Your task to perform on an android device: See recent photos Image 0: 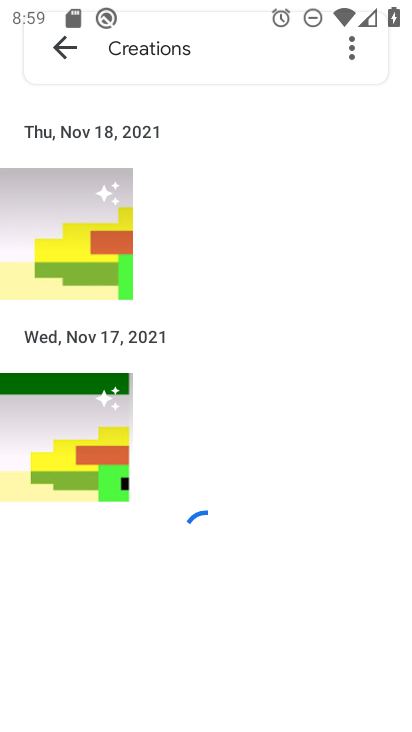
Step 0: press home button
Your task to perform on an android device: See recent photos Image 1: 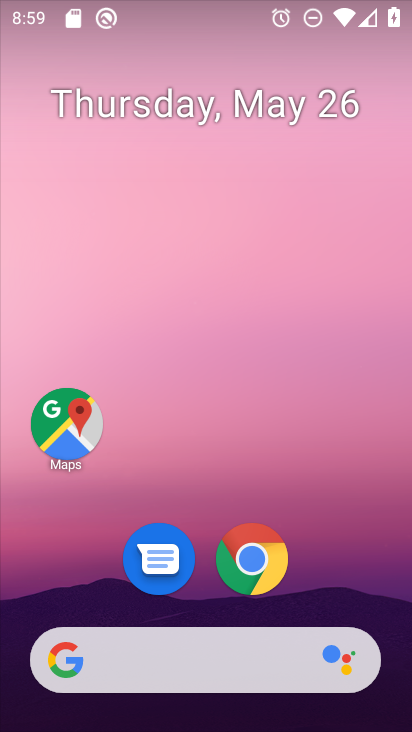
Step 1: drag from (323, 426) to (368, 72)
Your task to perform on an android device: See recent photos Image 2: 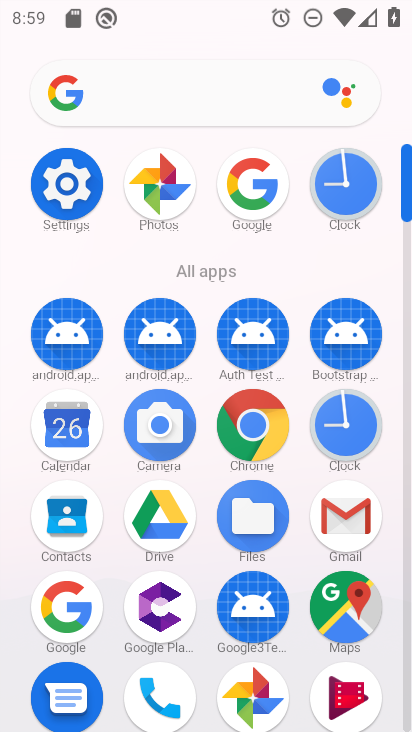
Step 2: click (164, 186)
Your task to perform on an android device: See recent photos Image 3: 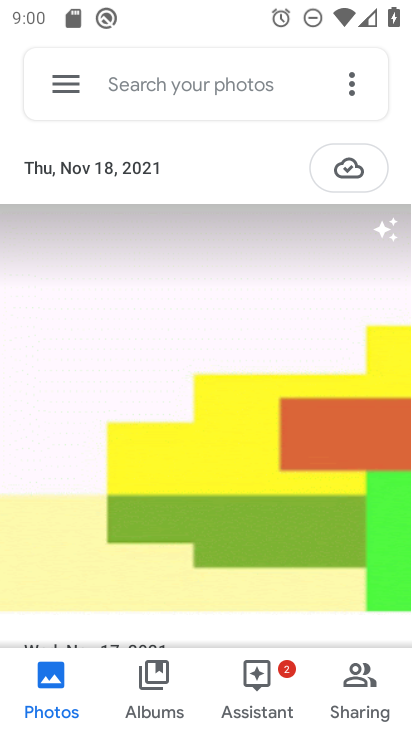
Step 3: task complete